Your task to perform on an android device: Open notification settings Image 0: 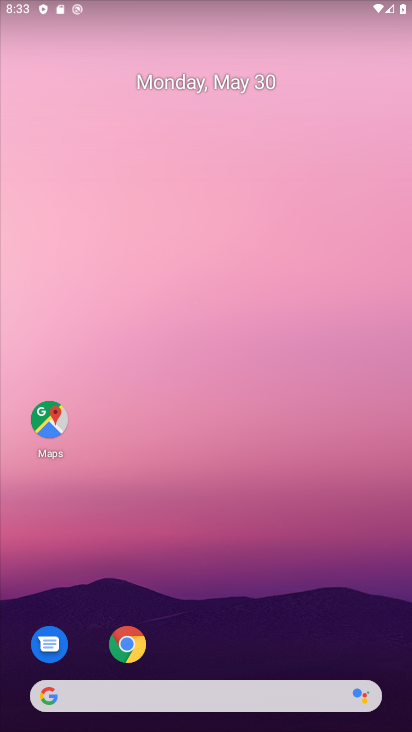
Step 0: drag from (376, 660) to (345, 159)
Your task to perform on an android device: Open notification settings Image 1: 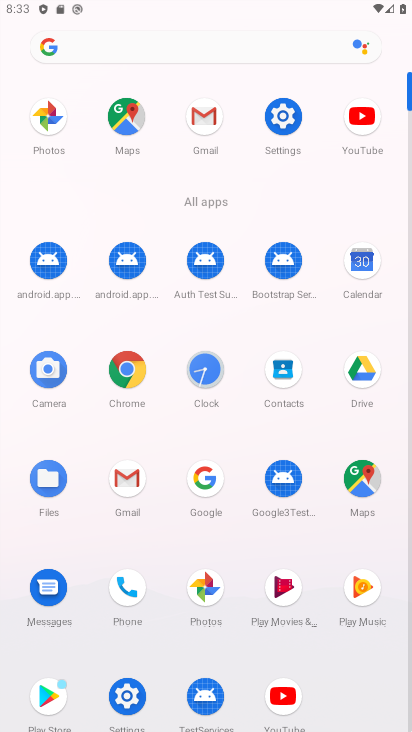
Step 1: click (410, 676)
Your task to perform on an android device: Open notification settings Image 2: 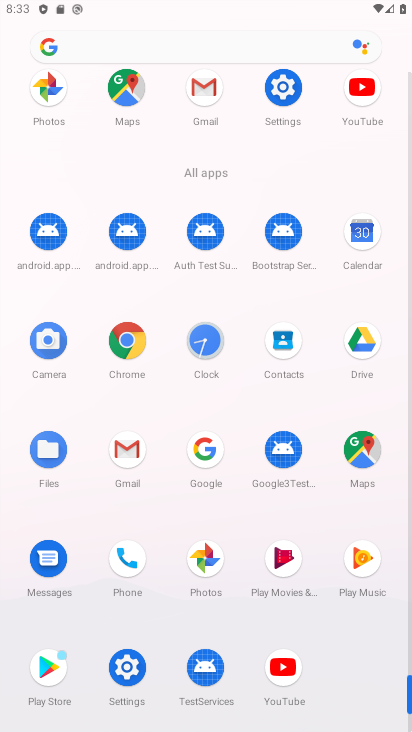
Step 2: click (126, 670)
Your task to perform on an android device: Open notification settings Image 3: 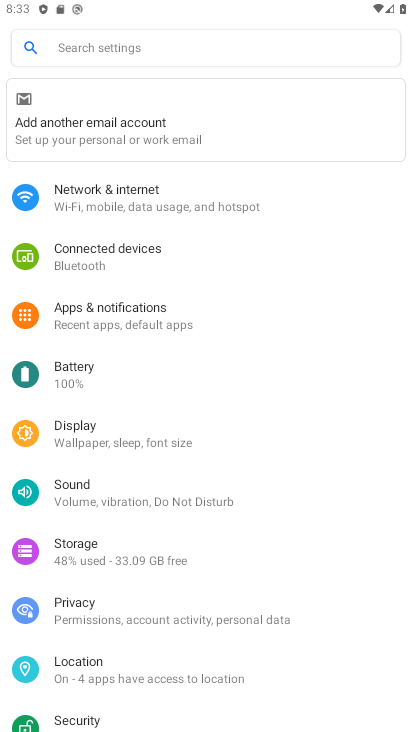
Step 3: click (121, 314)
Your task to perform on an android device: Open notification settings Image 4: 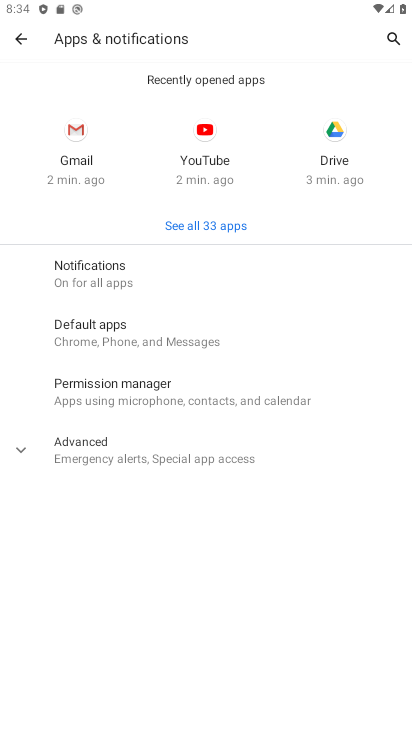
Step 4: click (77, 270)
Your task to perform on an android device: Open notification settings Image 5: 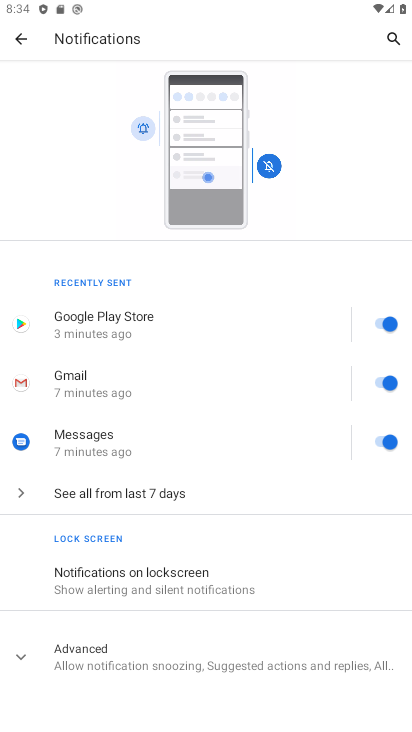
Step 5: drag from (248, 587) to (316, 160)
Your task to perform on an android device: Open notification settings Image 6: 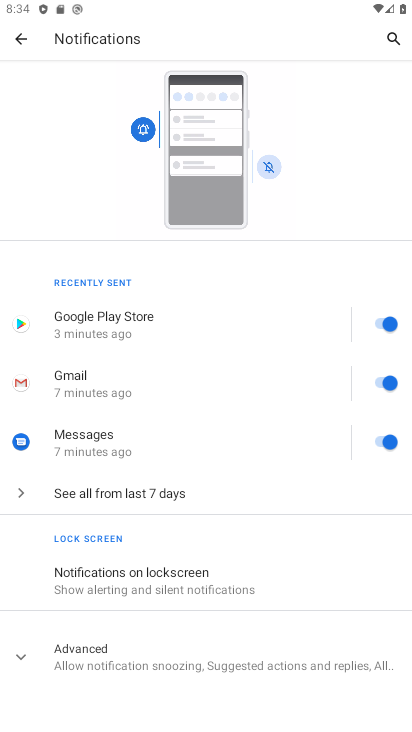
Step 6: click (16, 654)
Your task to perform on an android device: Open notification settings Image 7: 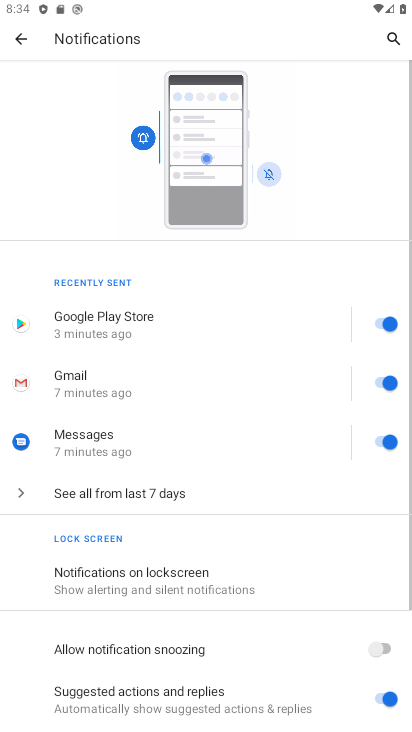
Step 7: task complete